Your task to perform on an android device: When is my next appointment? Image 0: 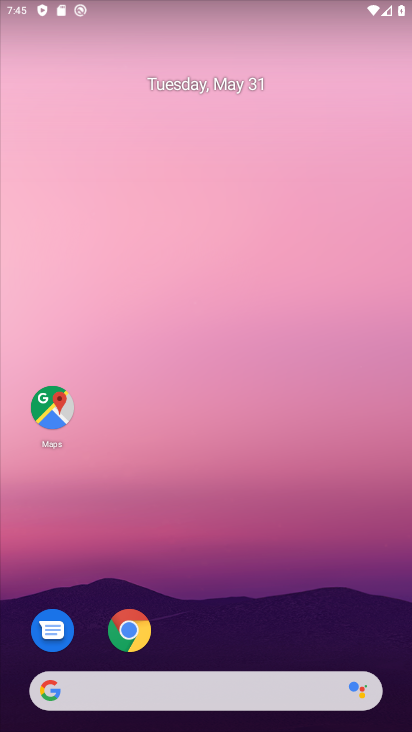
Step 0: press home button
Your task to perform on an android device: When is my next appointment? Image 1: 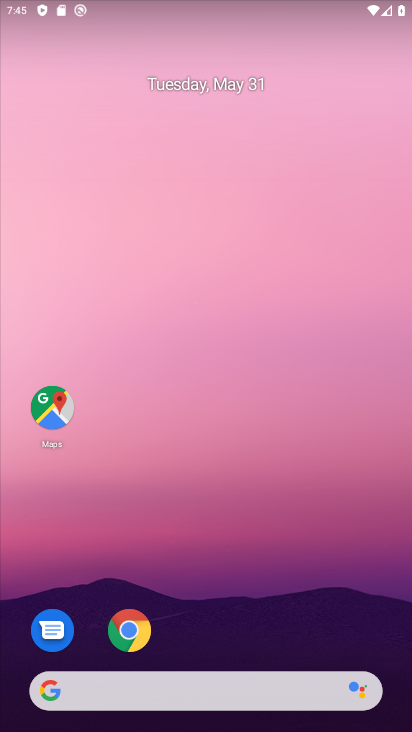
Step 1: drag from (251, 647) to (236, 308)
Your task to perform on an android device: When is my next appointment? Image 2: 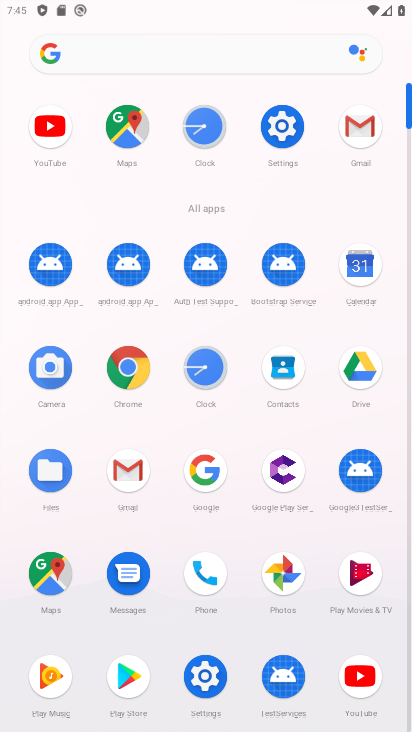
Step 2: click (355, 265)
Your task to perform on an android device: When is my next appointment? Image 3: 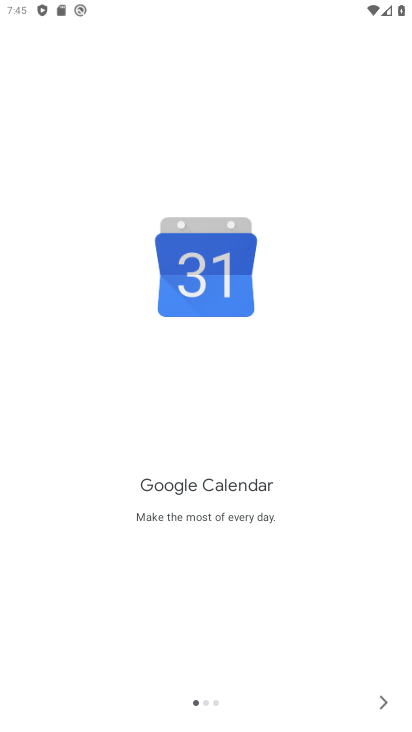
Step 3: click (381, 700)
Your task to perform on an android device: When is my next appointment? Image 4: 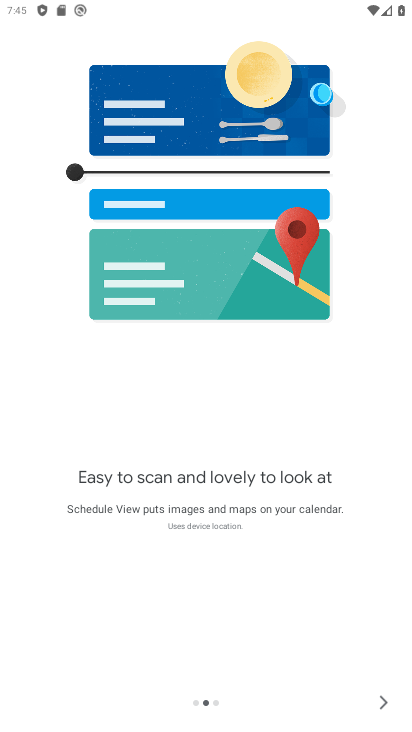
Step 4: click (381, 700)
Your task to perform on an android device: When is my next appointment? Image 5: 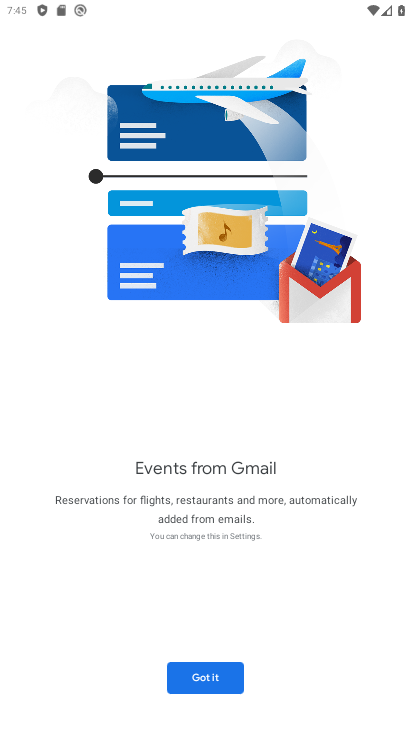
Step 5: click (211, 677)
Your task to perform on an android device: When is my next appointment? Image 6: 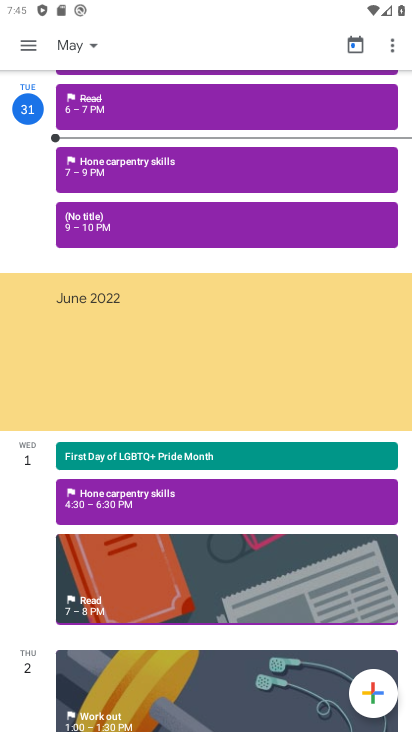
Step 6: click (29, 43)
Your task to perform on an android device: When is my next appointment? Image 7: 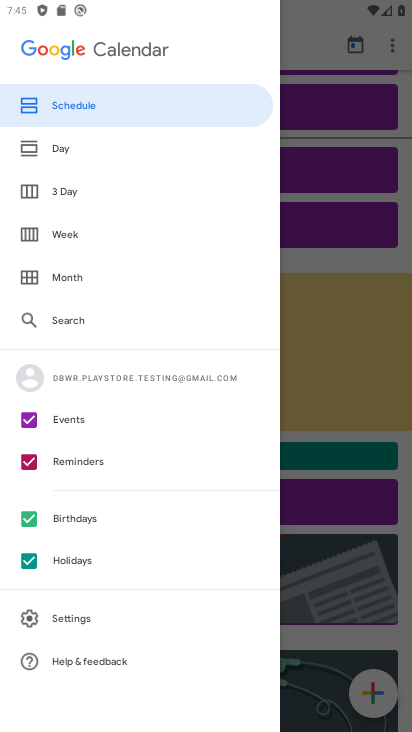
Step 7: click (55, 113)
Your task to perform on an android device: When is my next appointment? Image 8: 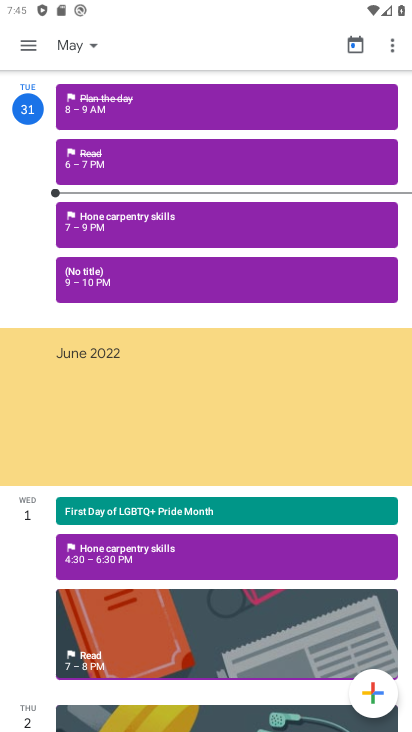
Step 8: task complete